Your task to perform on an android device: change keyboard looks Image 0: 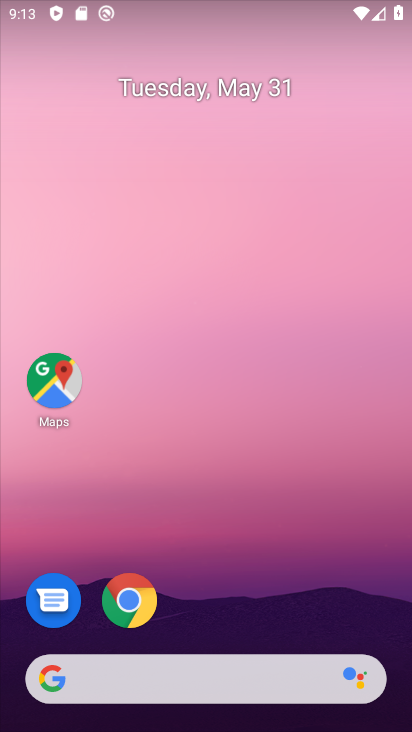
Step 0: drag from (223, 636) to (177, 312)
Your task to perform on an android device: change keyboard looks Image 1: 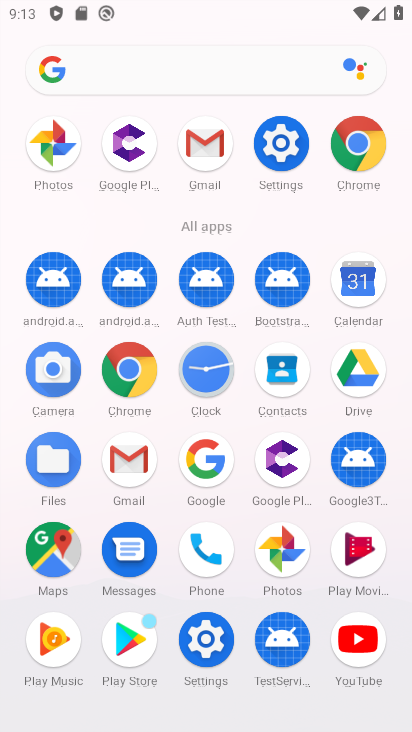
Step 1: click (288, 156)
Your task to perform on an android device: change keyboard looks Image 2: 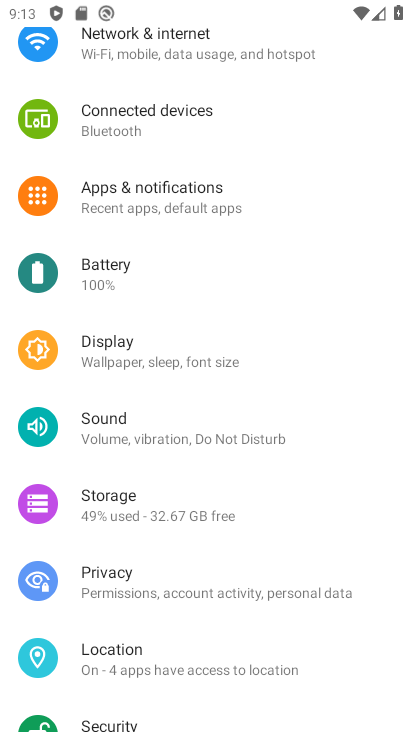
Step 2: drag from (166, 657) to (128, 212)
Your task to perform on an android device: change keyboard looks Image 3: 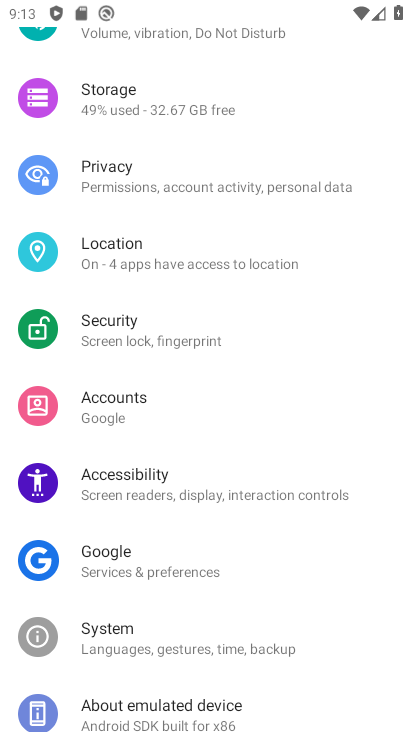
Step 3: click (117, 649)
Your task to perform on an android device: change keyboard looks Image 4: 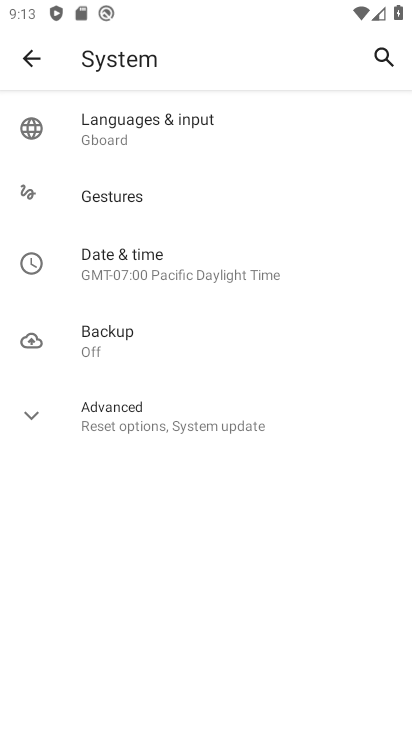
Step 4: click (138, 135)
Your task to perform on an android device: change keyboard looks Image 5: 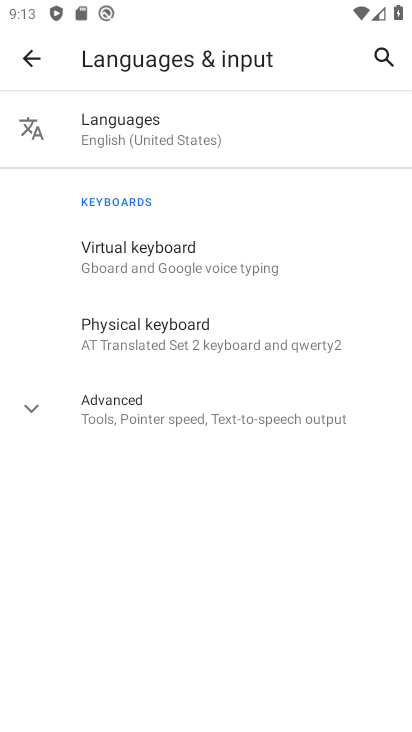
Step 5: click (119, 277)
Your task to perform on an android device: change keyboard looks Image 6: 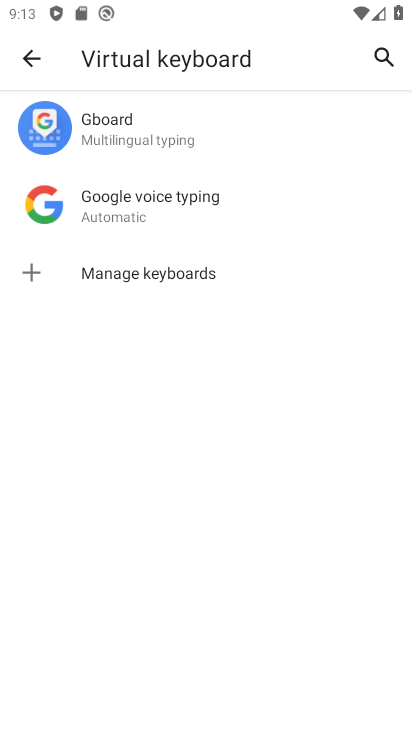
Step 6: click (102, 136)
Your task to perform on an android device: change keyboard looks Image 7: 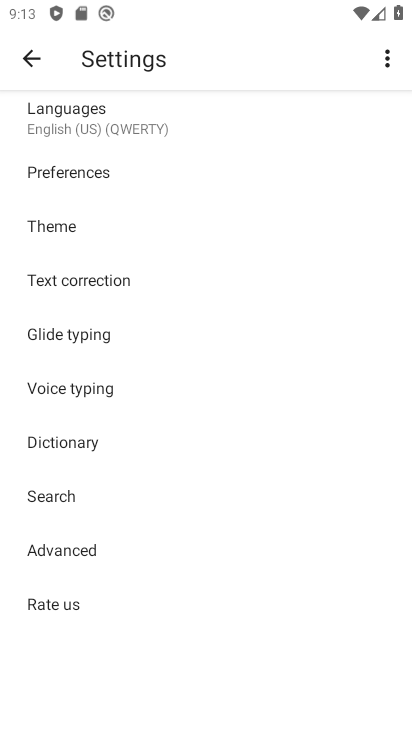
Step 7: click (47, 223)
Your task to perform on an android device: change keyboard looks Image 8: 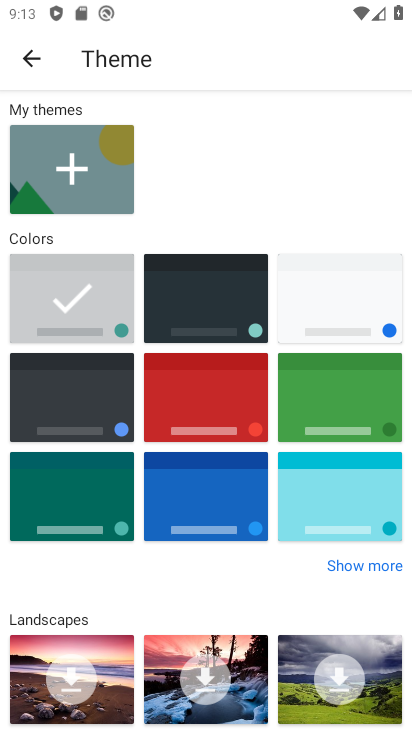
Step 8: click (202, 296)
Your task to perform on an android device: change keyboard looks Image 9: 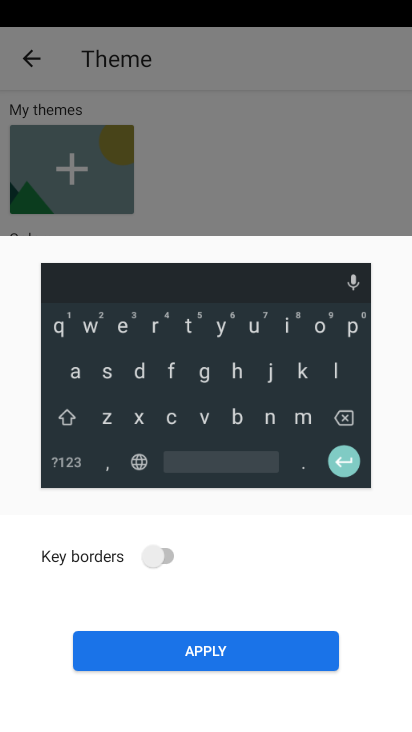
Step 9: click (209, 652)
Your task to perform on an android device: change keyboard looks Image 10: 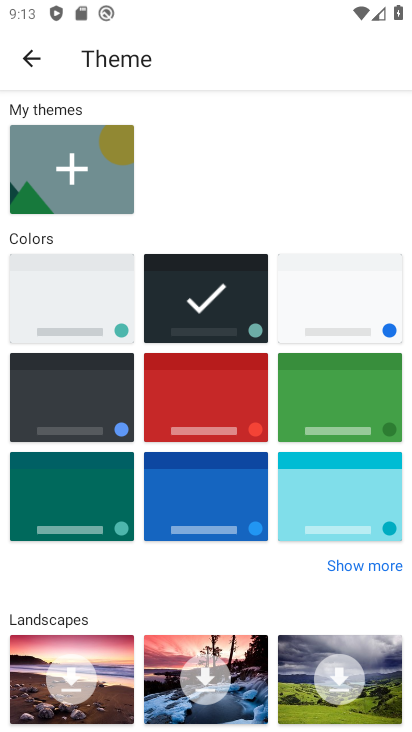
Step 10: task complete